Your task to perform on an android device: Go to display settings Image 0: 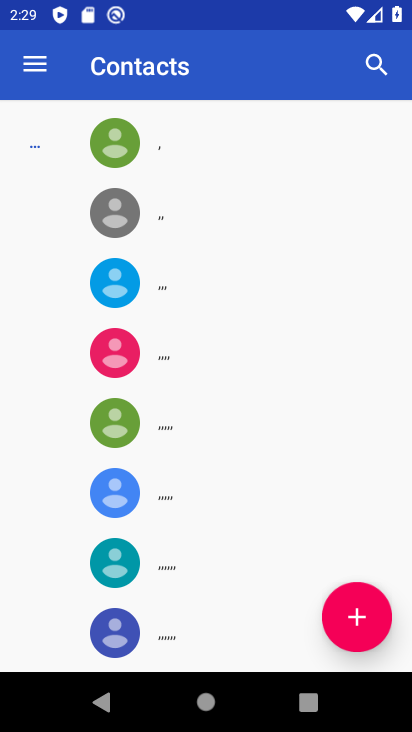
Step 0: press home button
Your task to perform on an android device: Go to display settings Image 1: 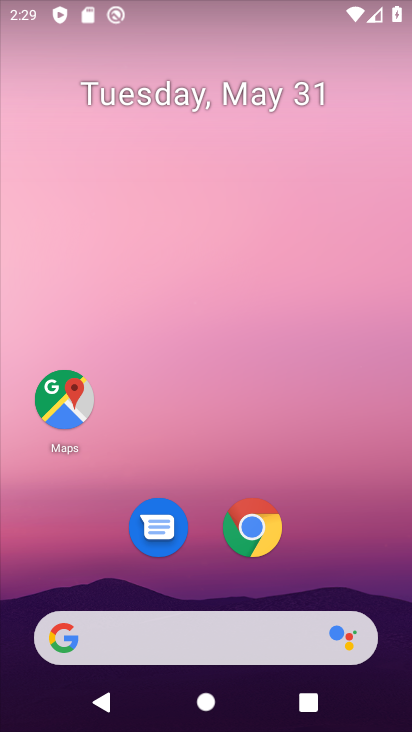
Step 1: drag from (215, 589) to (234, 20)
Your task to perform on an android device: Go to display settings Image 2: 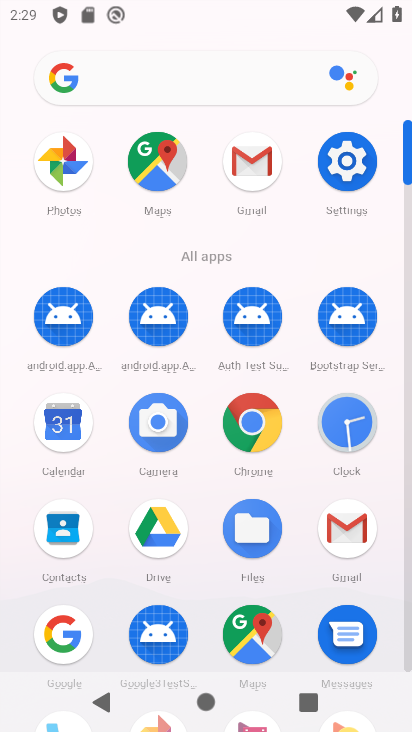
Step 2: click (357, 163)
Your task to perform on an android device: Go to display settings Image 3: 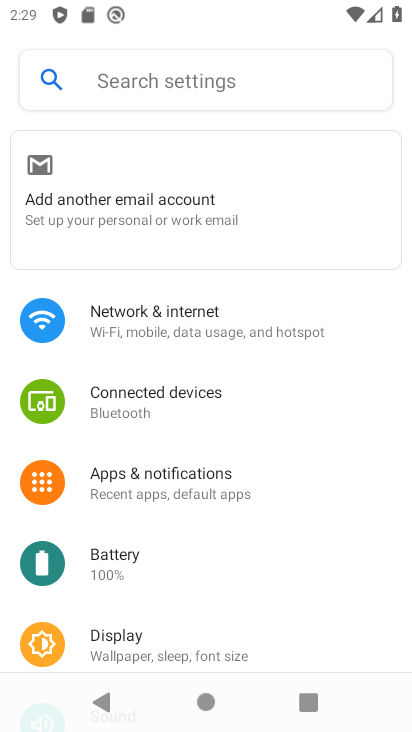
Step 3: drag from (236, 559) to (178, 145)
Your task to perform on an android device: Go to display settings Image 4: 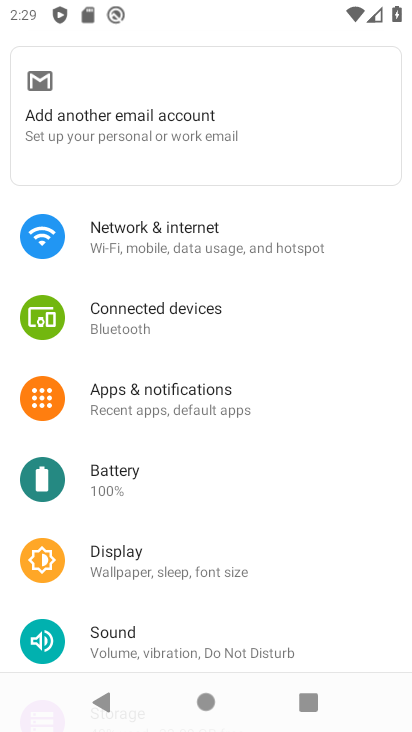
Step 4: click (190, 568)
Your task to perform on an android device: Go to display settings Image 5: 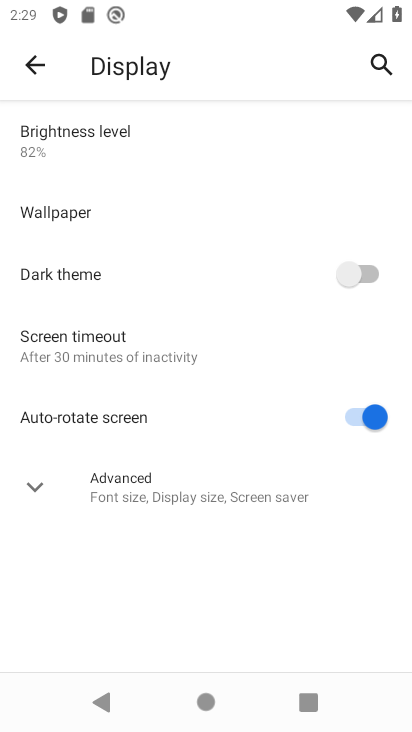
Step 5: task complete